Your task to perform on an android device: Go to Maps Image 0: 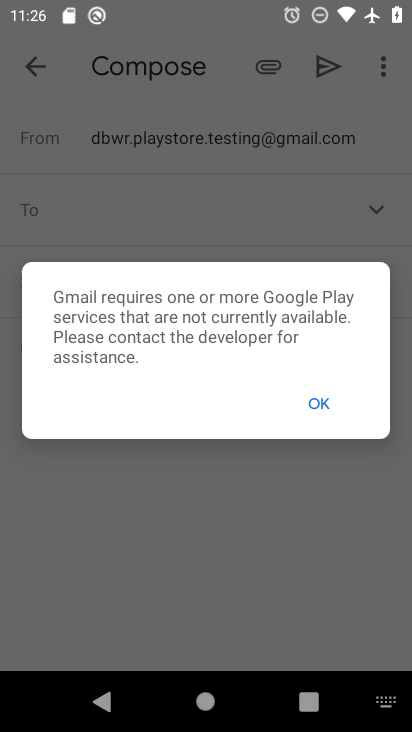
Step 0: press home button
Your task to perform on an android device: Go to Maps Image 1: 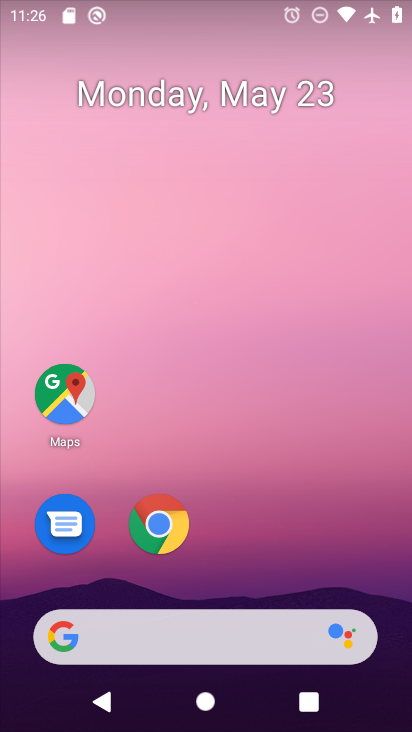
Step 1: click (74, 378)
Your task to perform on an android device: Go to Maps Image 2: 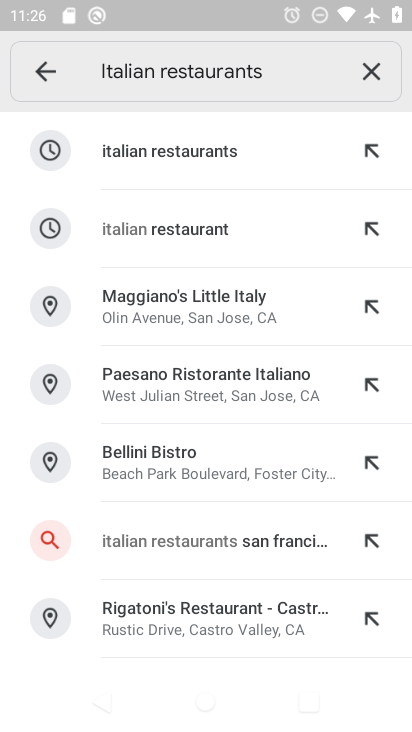
Step 2: task complete